Your task to perform on an android device: Open the map Image 0: 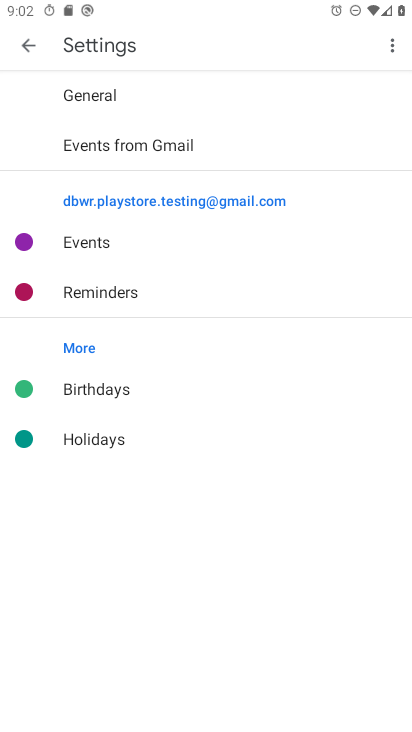
Step 0: press home button
Your task to perform on an android device: Open the map Image 1: 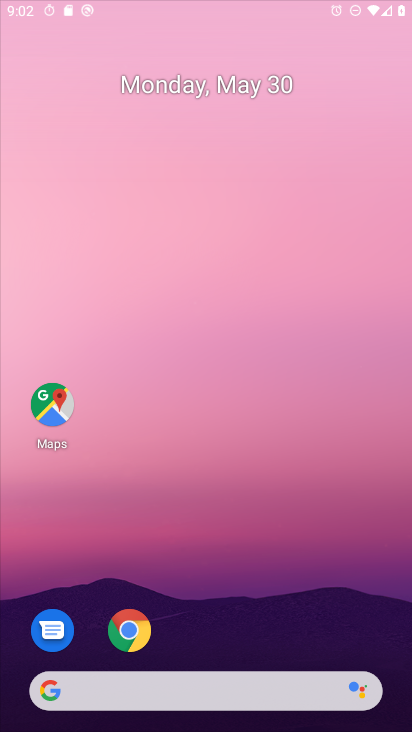
Step 1: drag from (368, 629) to (260, 52)
Your task to perform on an android device: Open the map Image 2: 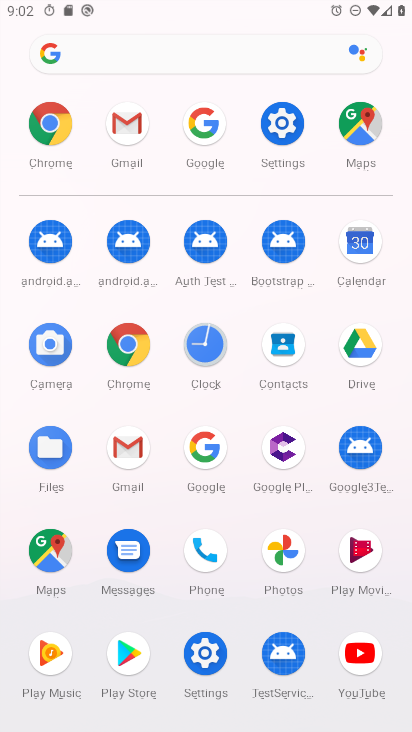
Step 2: click (357, 122)
Your task to perform on an android device: Open the map Image 3: 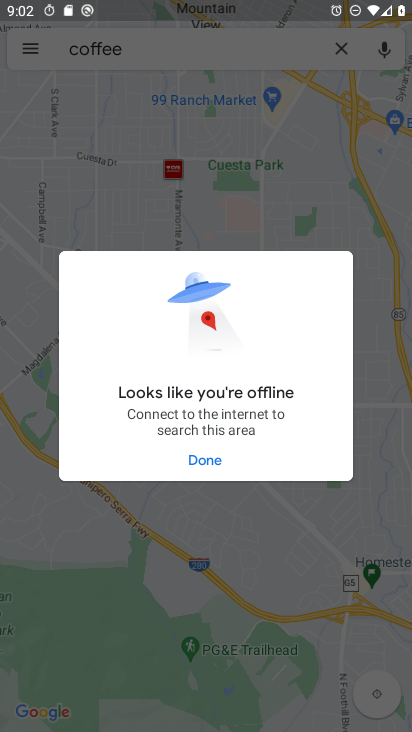
Step 3: press back button
Your task to perform on an android device: Open the map Image 4: 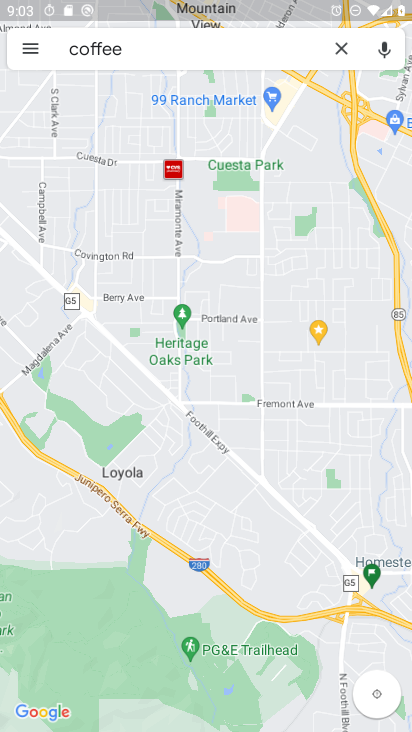
Step 4: click (338, 51)
Your task to perform on an android device: Open the map Image 5: 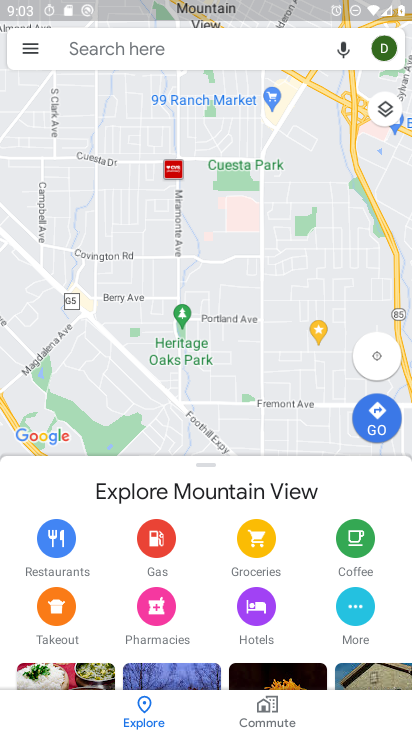
Step 5: task complete